Your task to perform on an android device: change notification settings in the gmail app Image 0: 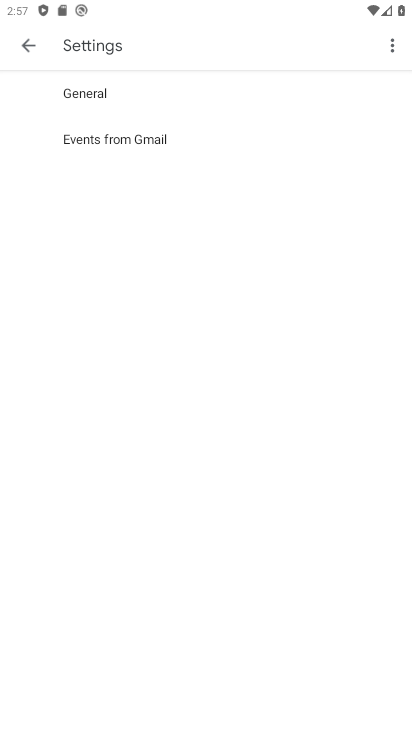
Step 0: press home button
Your task to perform on an android device: change notification settings in the gmail app Image 1: 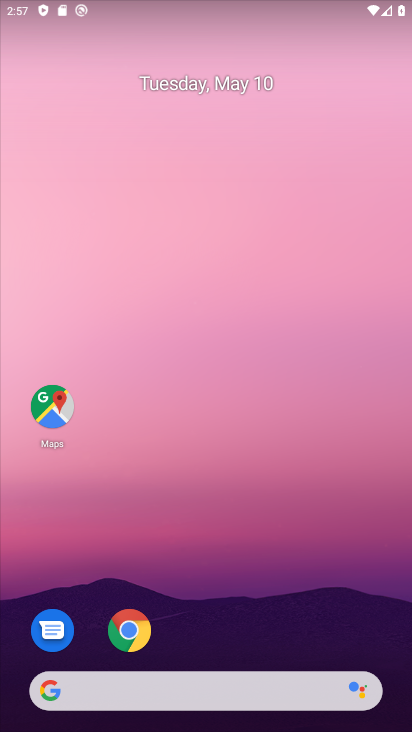
Step 1: drag from (248, 623) to (235, 58)
Your task to perform on an android device: change notification settings in the gmail app Image 2: 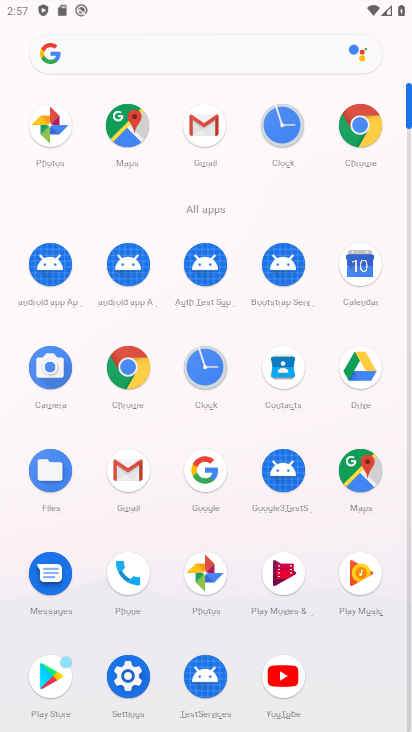
Step 2: click (120, 455)
Your task to perform on an android device: change notification settings in the gmail app Image 3: 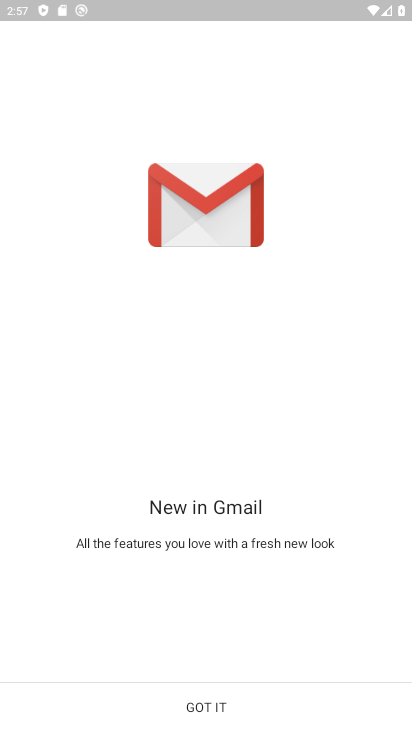
Step 3: click (229, 706)
Your task to perform on an android device: change notification settings in the gmail app Image 4: 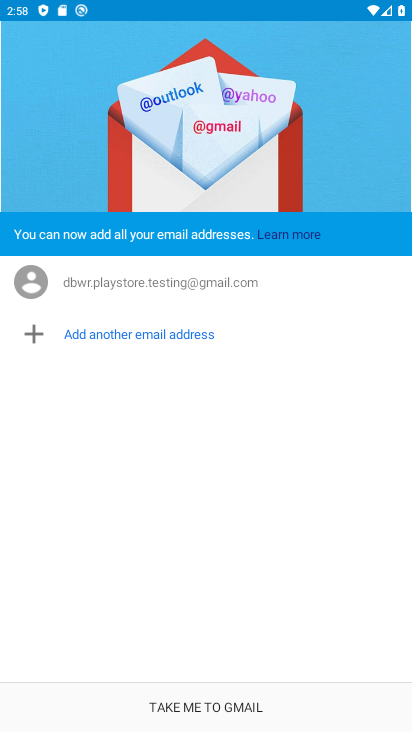
Step 4: click (166, 693)
Your task to perform on an android device: change notification settings in the gmail app Image 5: 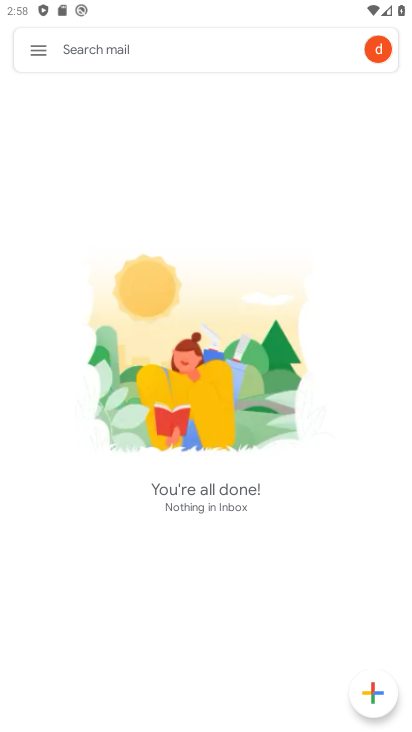
Step 5: click (40, 59)
Your task to perform on an android device: change notification settings in the gmail app Image 6: 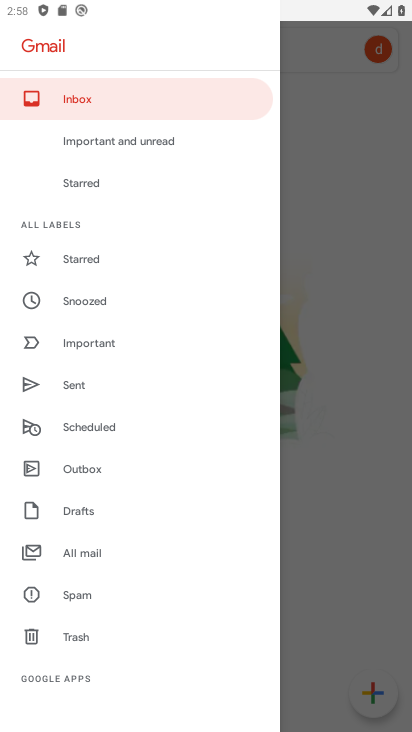
Step 6: drag from (136, 655) to (148, 214)
Your task to perform on an android device: change notification settings in the gmail app Image 7: 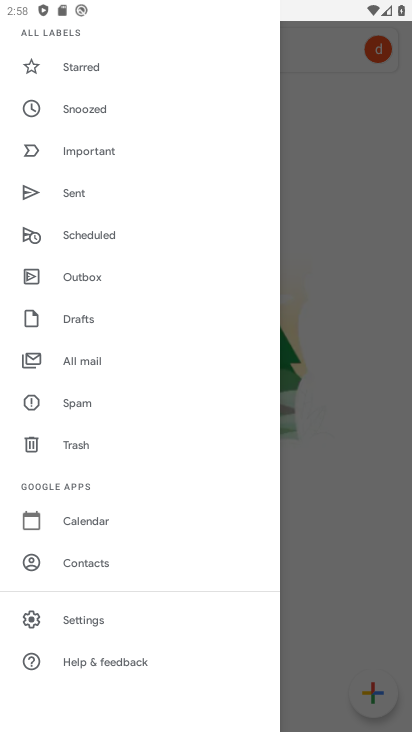
Step 7: click (80, 616)
Your task to perform on an android device: change notification settings in the gmail app Image 8: 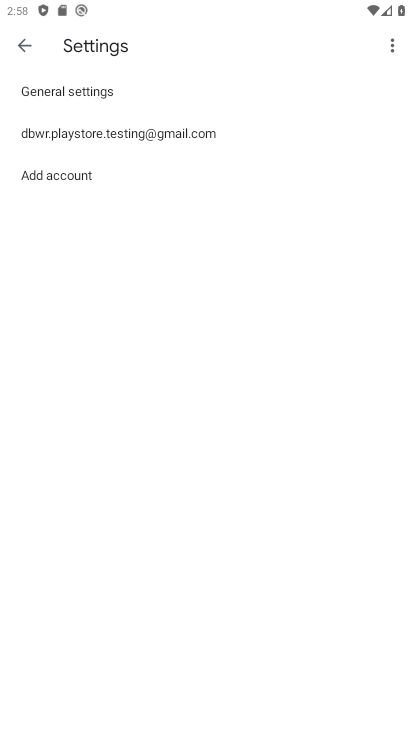
Step 8: click (232, 129)
Your task to perform on an android device: change notification settings in the gmail app Image 9: 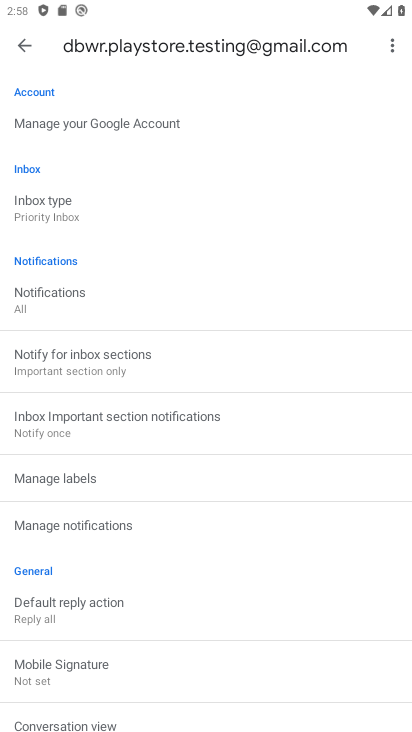
Step 9: click (110, 288)
Your task to perform on an android device: change notification settings in the gmail app Image 10: 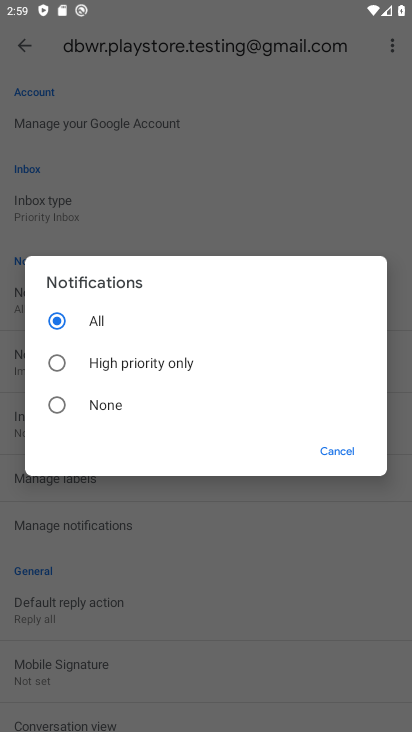
Step 10: click (159, 363)
Your task to perform on an android device: change notification settings in the gmail app Image 11: 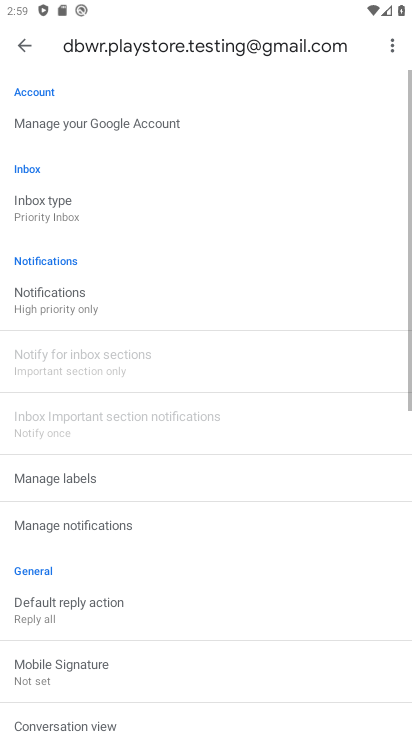
Step 11: task complete